Your task to perform on an android device: Go to Reddit.com Image 0: 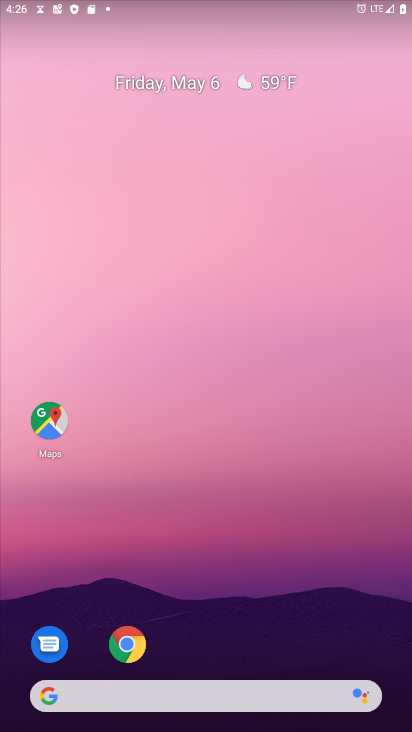
Step 0: drag from (232, 600) to (265, 80)
Your task to perform on an android device: Go to Reddit.com Image 1: 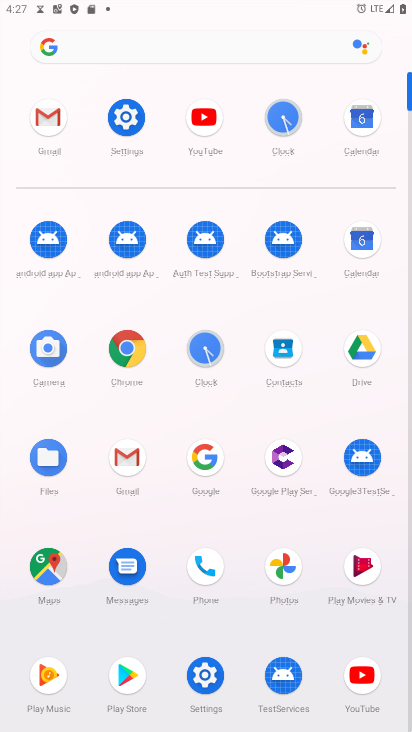
Step 1: click (128, 352)
Your task to perform on an android device: Go to Reddit.com Image 2: 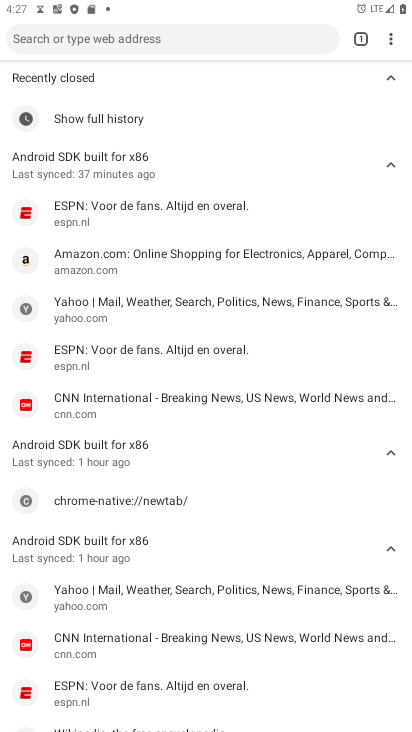
Step 2: click (162, 40)
Your task to perform on an android device: Go to Reddit.com Image 3: 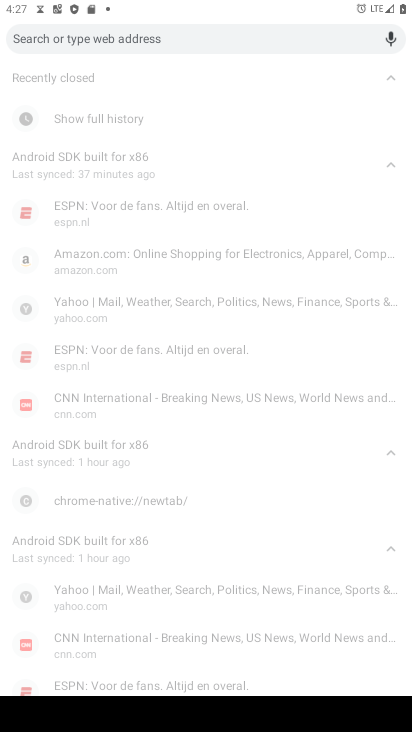
Step 3: type "Reddit.com"
Your task to perform on an android device: Go to Reddit.com Image 4: 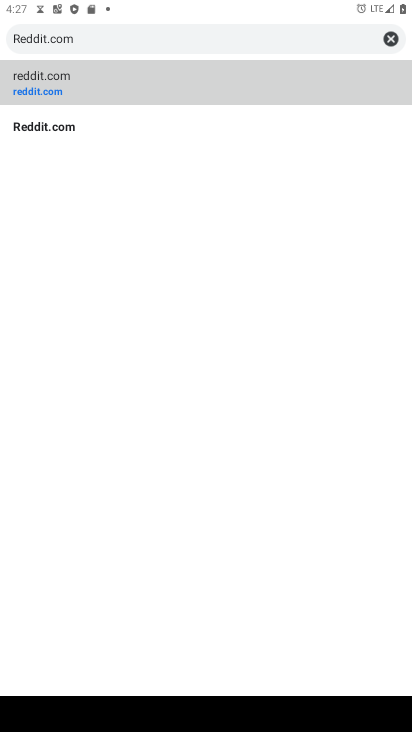
Step 4: click (31, 126)
Your task to perform on an android device: Go to Reddit.com Image 5: 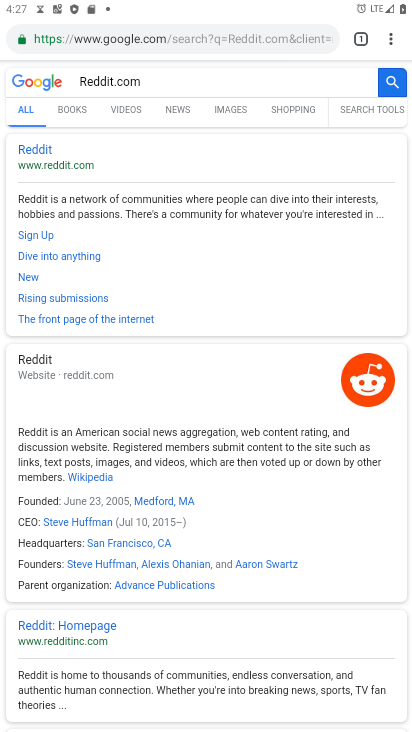
Step 5: click (61, 166)
Your task to perform on an android device: Go to Reddit.com Image 6: 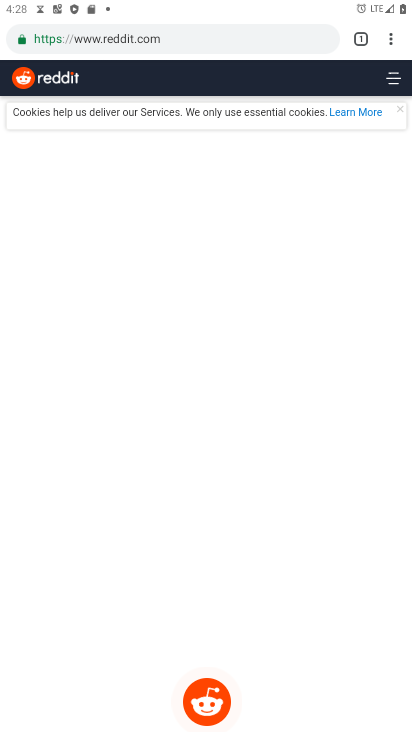
Step 6: task complete